Your task to perform on an android device: check data usage Image 0: 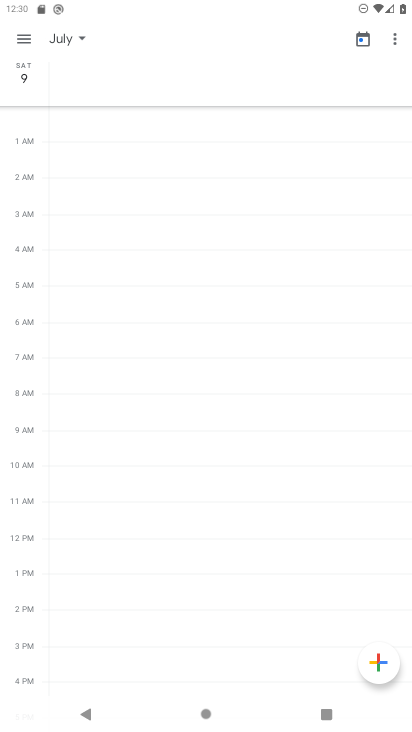
Step 0: press home button
Your task to perform on an android device: check data usage Image 1: 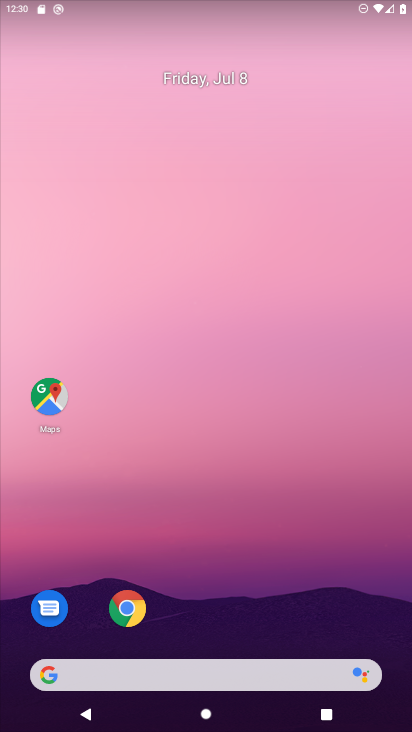
Step 1: drag from (249, 668) to (214, 95)
Your task to perform on an android device: check data usage Image 2: 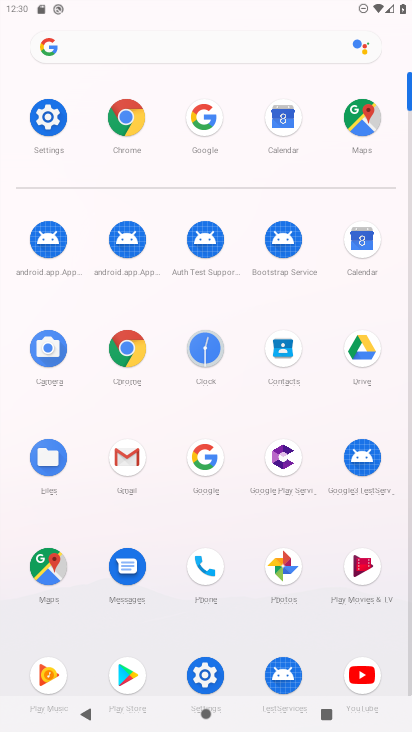
Step 2: click (194, 673)
Your task to perform on an android device: check data usage Image 3: 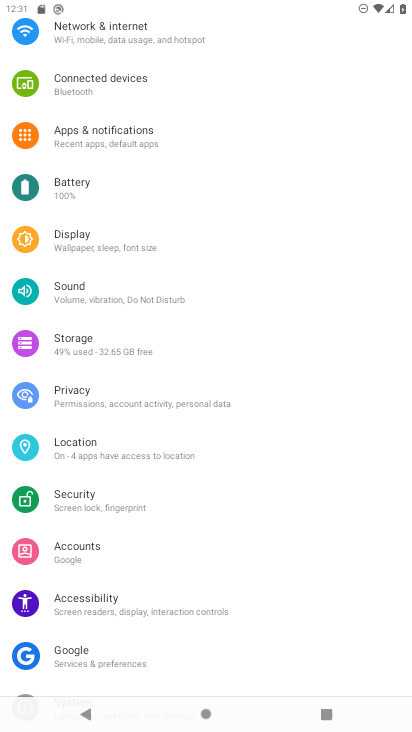
Step 3: click (119, 29)
Your task to perform on an android device: check data usage Image 4: 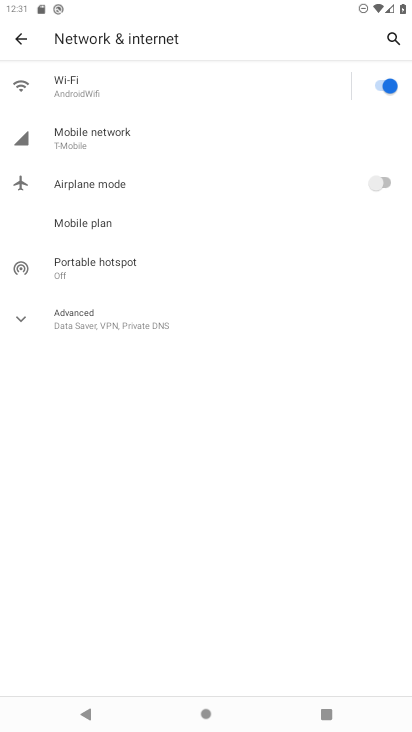
Step 4: click (86, 138)
Your task to perform on an android device: check data usage Image 5: 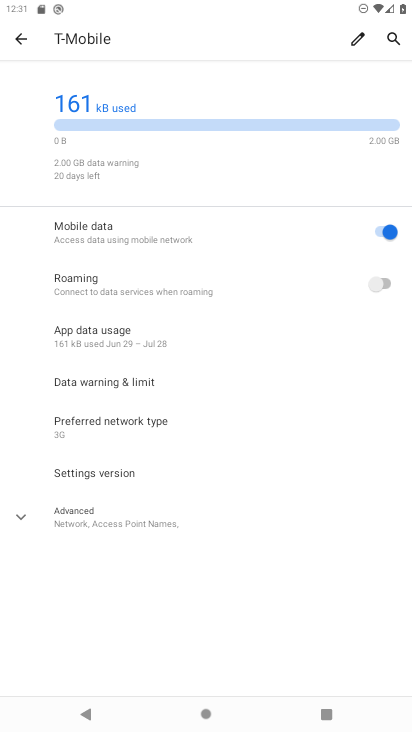
Step 5: click (109, 337)
Your task to perform on an android device: check data usage Image 6: 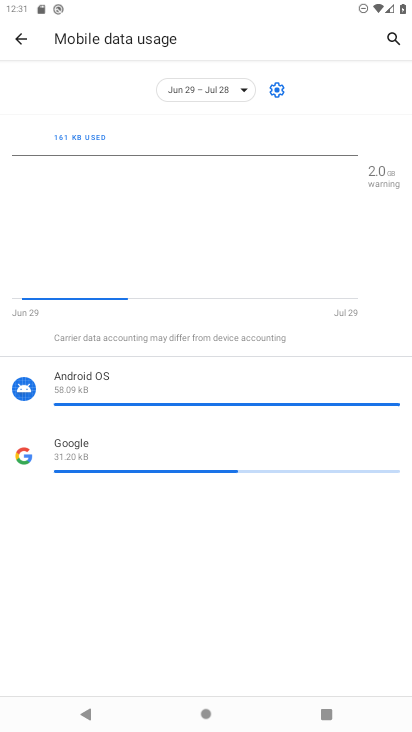
Step 6: task complete